Your task to perform on an android device: turn on data saver in the chrome app Image 0: 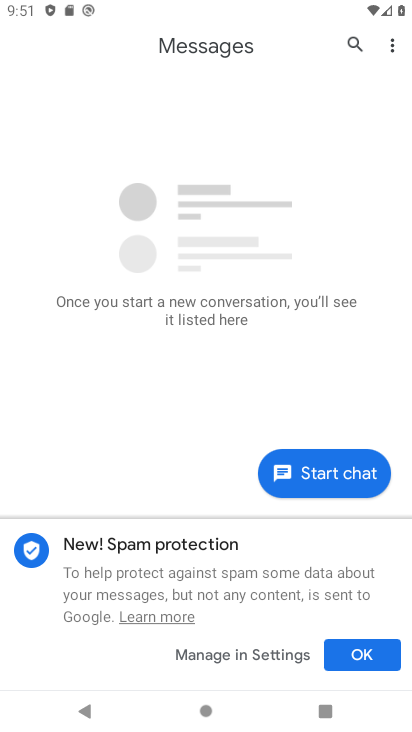
Step 0: press home button
Your task to perform on an android device: turn on data saver in the chrome app Image 1: 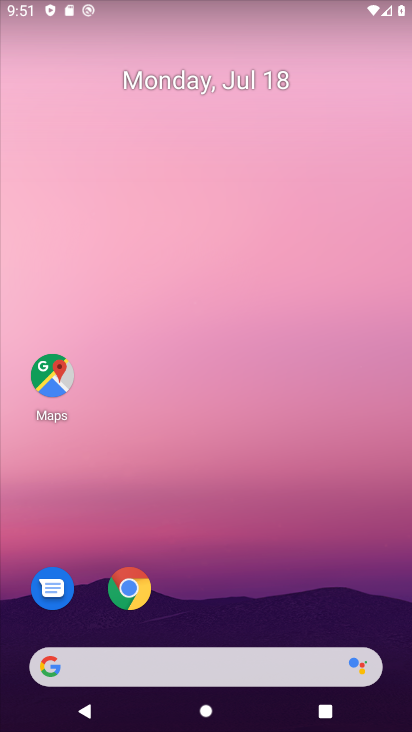
Step 1: click (126, 588)
Your task to perform on an android device: turn on data saver in the chrome app Image 2: 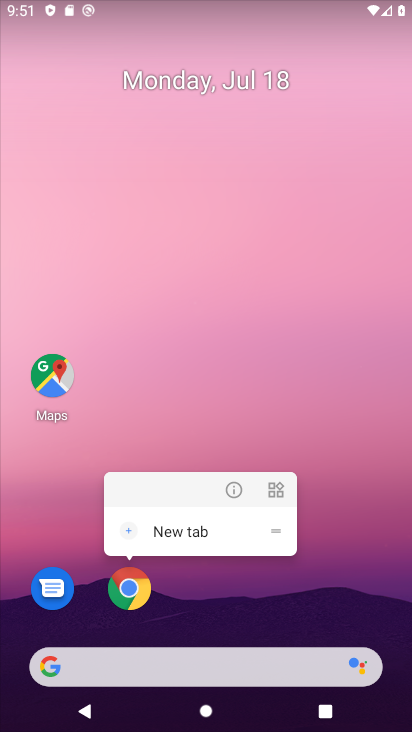
Step 2: click (125, 590)
Your task to perform on an android device: turn on data saver in the chrome app Image 3: 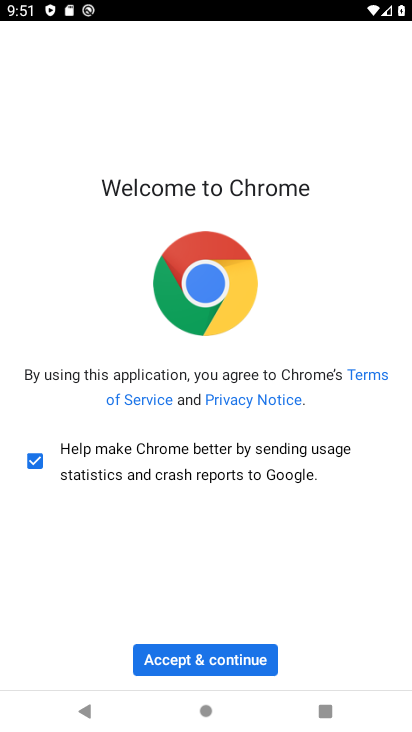
Step 3: click (232, 658)
Your task to perform on an android device: turn on data saver in the chrome app Image 4: 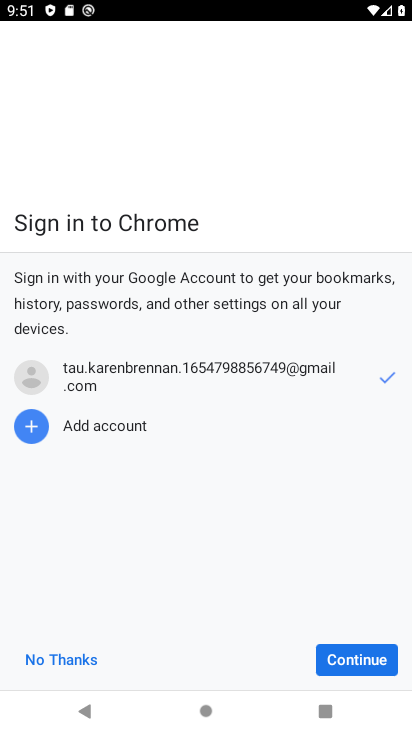
Step 4: click (370, 660)
Your task to perform on an android device: turn on data saver in the chrome app Image 5: 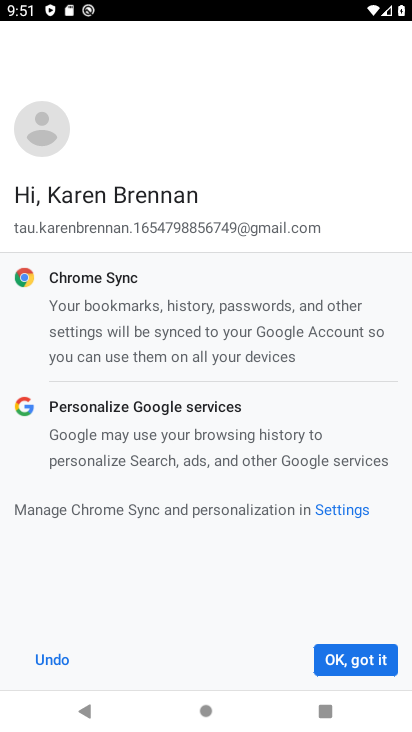
Step 5: click (370, 660)
Your task to perform on an android device: turn on data saver in the chrome app Image 6: 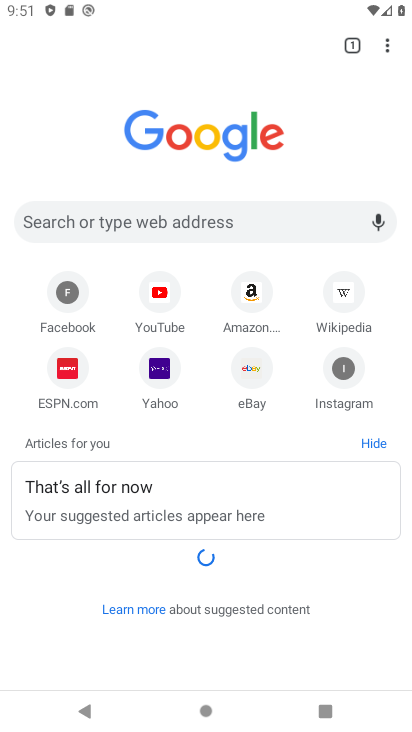
Step 6: click (387, 51)
Your task to perform on an android device: turn on data saver in the chrome app Image 7: 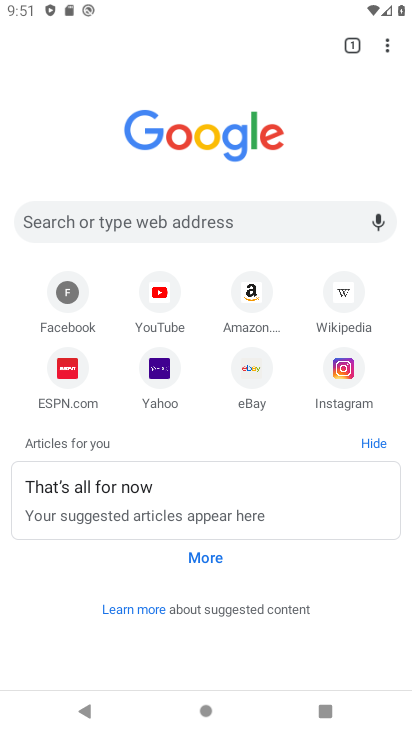
Step 7: click (387, 47)
Your task to perform on an android device: turn on data saver in the chrome app Image 8: 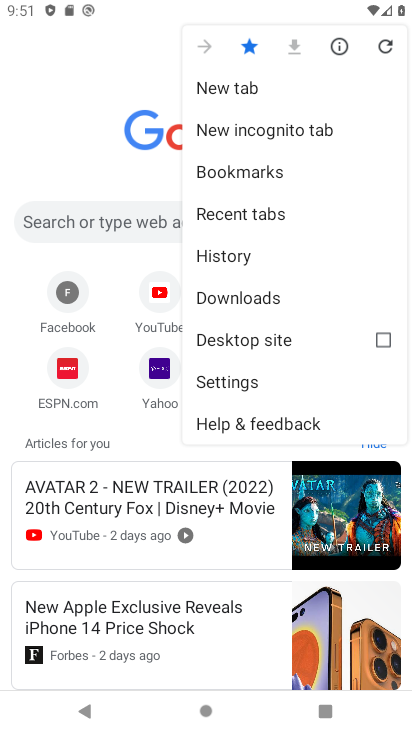
Step 8: click (236, 380)
Your task to perform on an android device: turn on data saver in the chrome app Image 9: 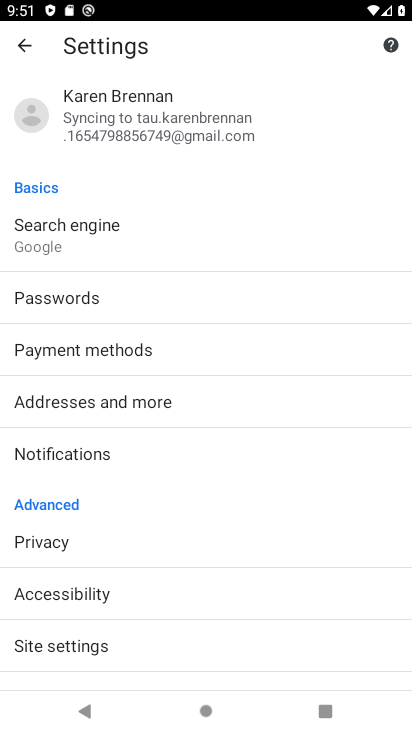
Step 9: drag from (142, 662) to (137, 358)
Your task to perform on an android device: turn on data saver in the chrome app Image 10: 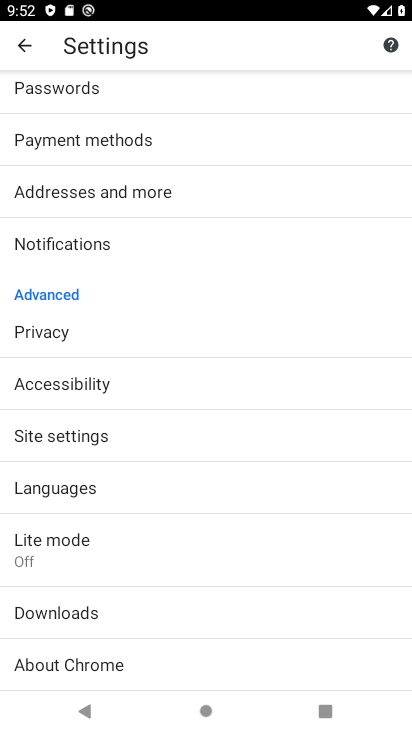
Step 10: click (67, 538)
Your task to perform on an android device: turn on data saver in the chrome app Image 11: 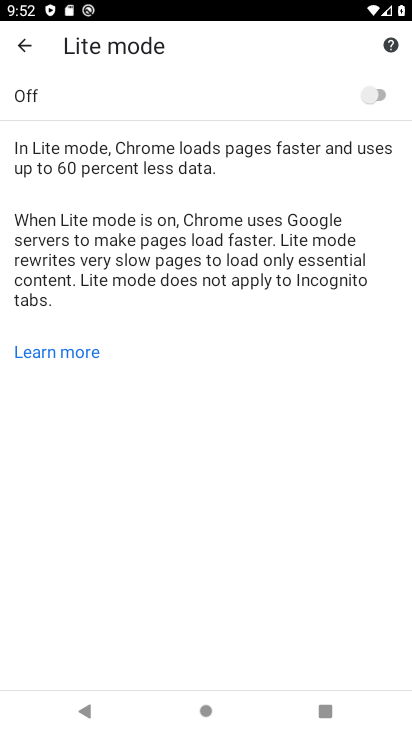
Step 11: click (385, 90)
Your task to perform on an android device: turn on data saver in the chrome app Image 12: 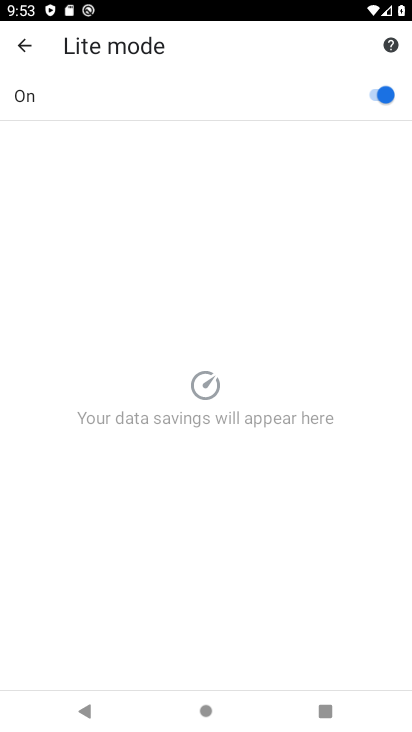
Step 12: task complete